Your task to perform on an android device: turn on location history Image 0: 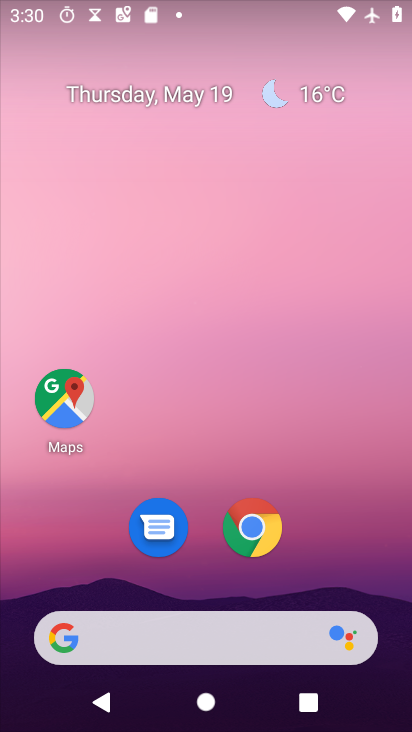
Step 0: drag from (336, 551) to (187, 21)
Your task to perform on an android device: turn on location history Image 1: 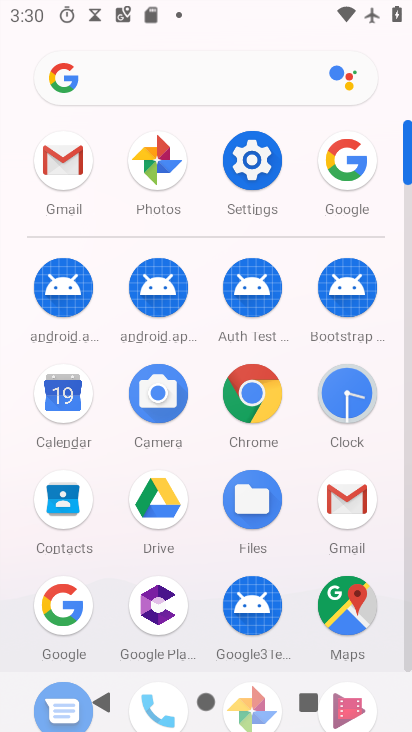
Step 1: click (279, 152)
Your task to perform on an android device: turn on location history Image 2: 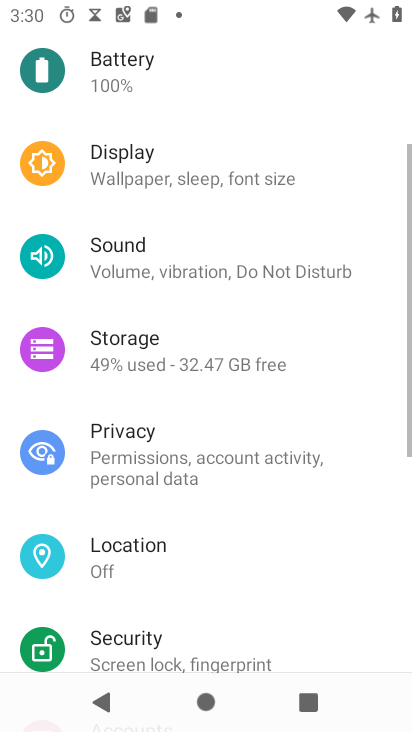
Step 2: drag from (268, 573) to (230, 317)
Your task to perform on an android device: turn on location history Image 3: 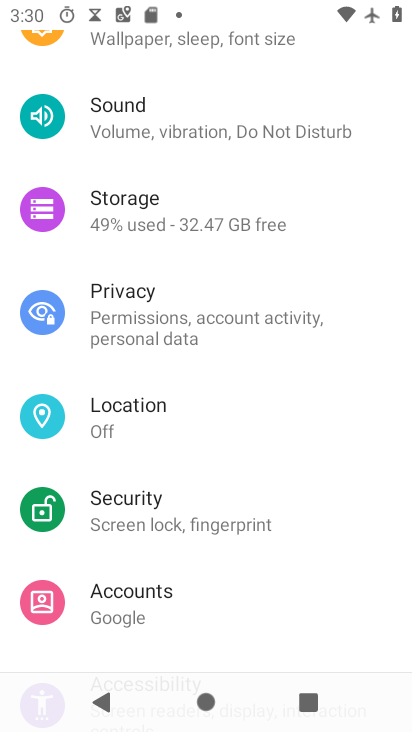
Step 3: click (227, 412)
Your task to perform on an android device: turn on location history Image 4: 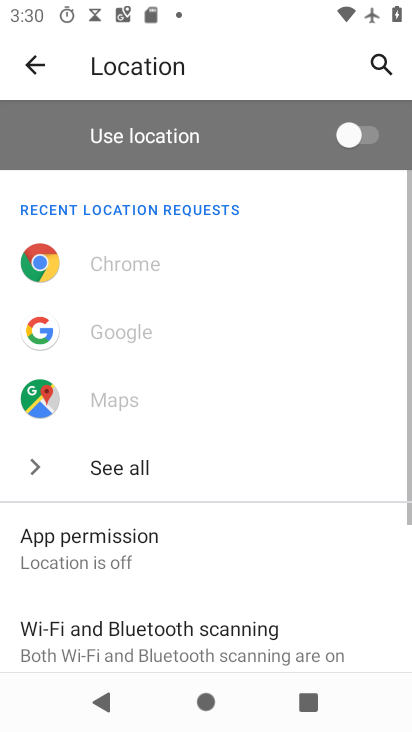
Step 4: drag from (282, 537) to (227, 187)
Your task to perform on an android device: turn on location history Image 5: 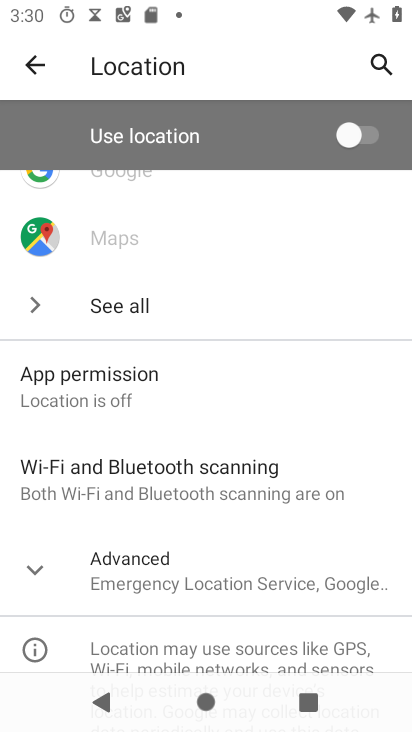
Step 5: click (274, 561)
Your task to perform on an android device: turn on location history Image 6: 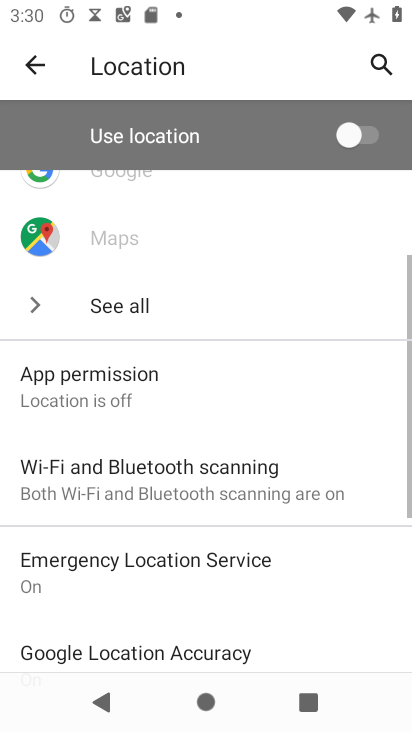
Step 6: drag from (253, 587) to (233, 163)
Your task to perform on an android device: turn on location history Image 7: 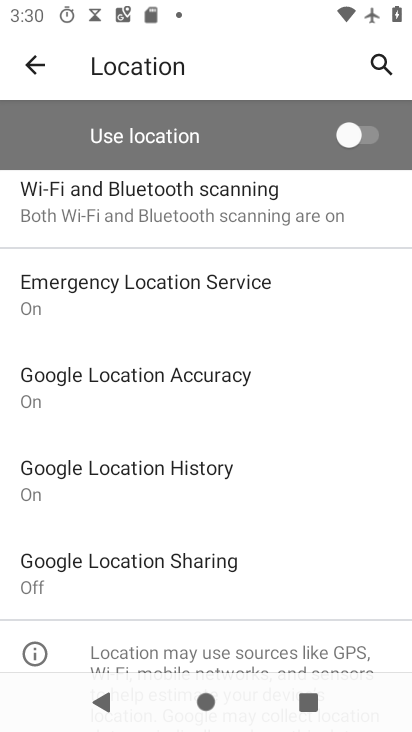
Step 7: click (255, 476)
Your task to perform on an android device: turn on location history Image 8: 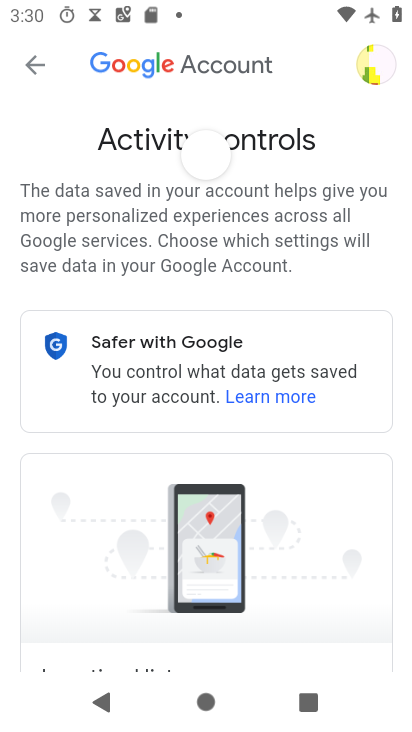
Step 8: task complete